Your task to perform on an android device: turn off data saver in the chrome app Image 0: 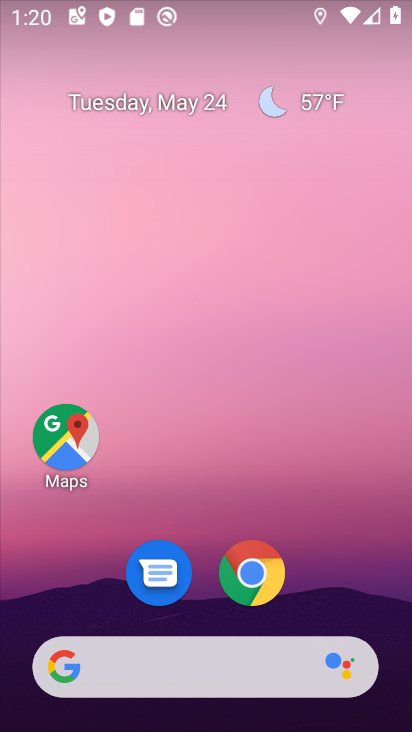
Step 0: drag from (288, 566) to (273, 196)
Your task to perform on an android device: turn off data saver in the chrome app Image 1: 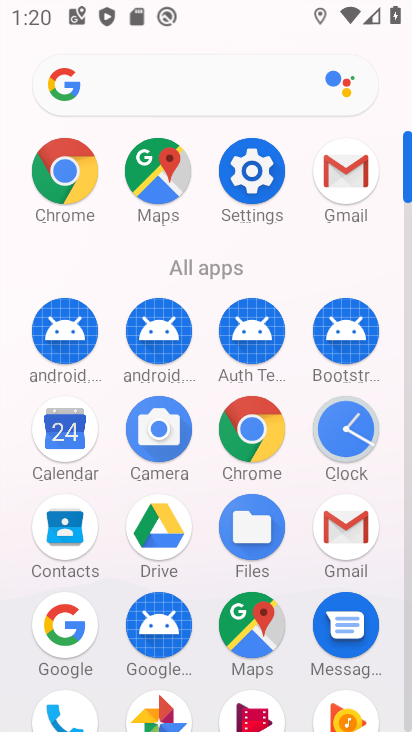
Step 1: click (274, 434)
Your task to perform on an android device: turn off data saver in the chrome app Image 2: 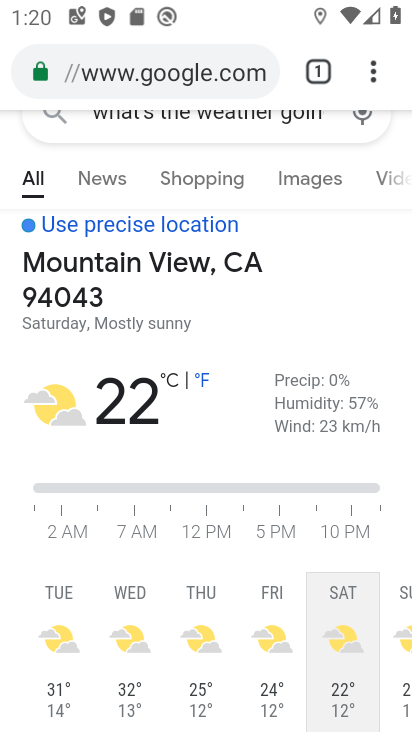
Step 2: drag from (384, 77) to (145, 562)
Your task to perform on an android device: turn off data saver in the chrome app Image 3: 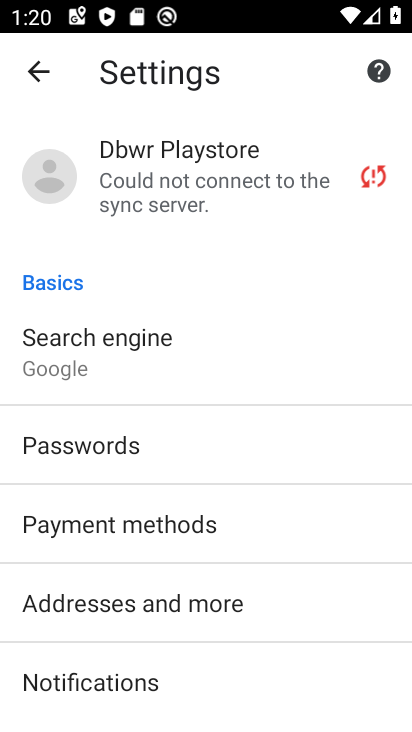
Step 3: drag from (236, 651) to (258, 305)
Your task to perform on an android device: turn off data saver in the chrome app Image 4: 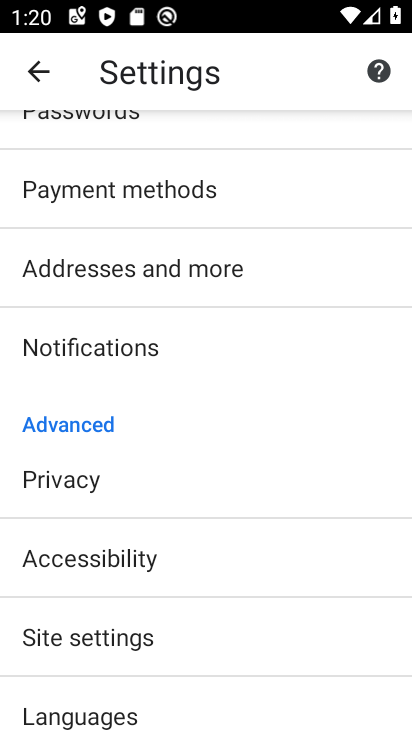
Step 4: drag from (261, 621) to (272, 205)
Your task to perform on an android device: turn off data saver in the chrome app Image 5: 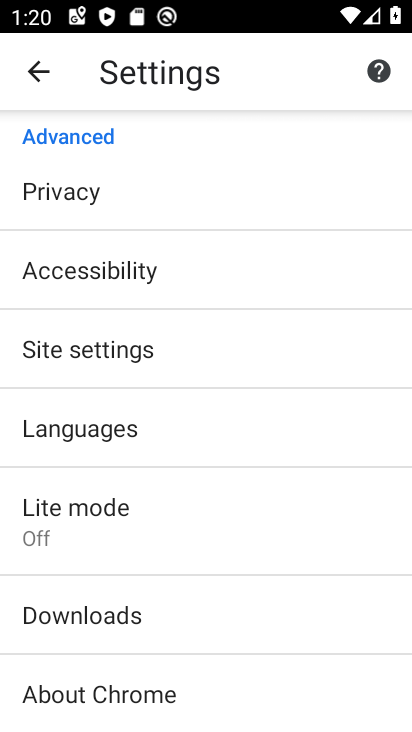
Step 5: drag from (203, 632) to (201, 243)
Your task to perform on an android device: turn off data saver in the chrome app Image 6: 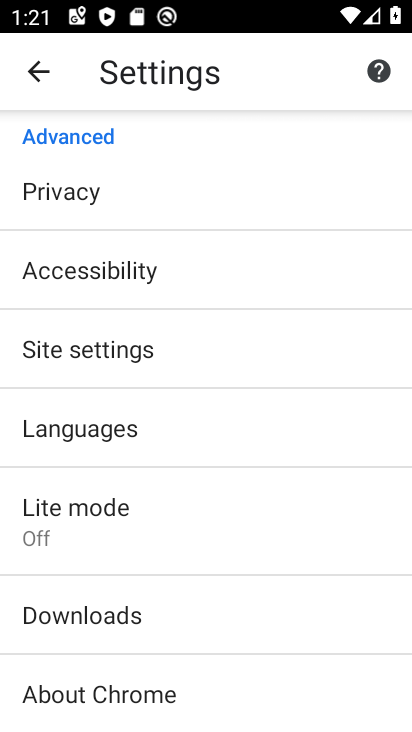
Step 6: click (154, 424)
Your task to perform on an android device: turn off data saver in the chrome app Image 7: 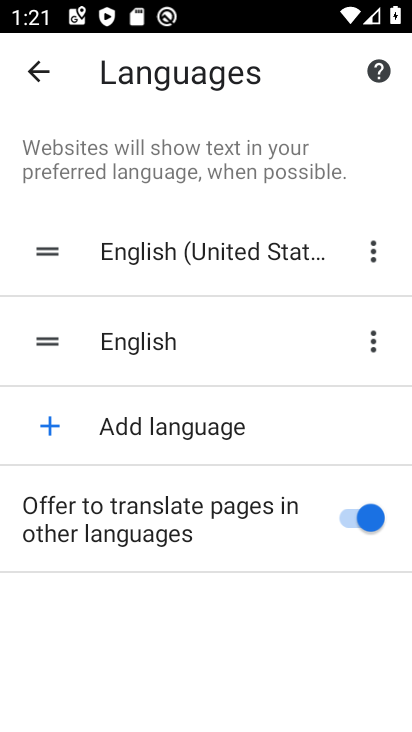
Step 7: click (42, 78)
Your task to perform on an android device: turn off data saver in the chrome app Image 8: 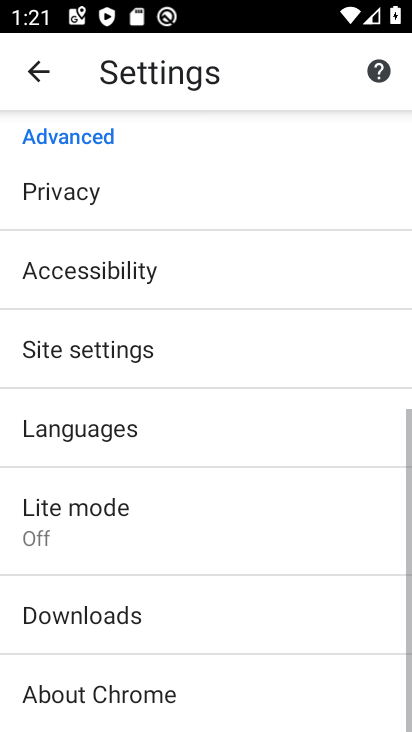
Step 8: click (102, 512)
Your task to perform on an android device: turn off data saver in the chrome app Image 9: 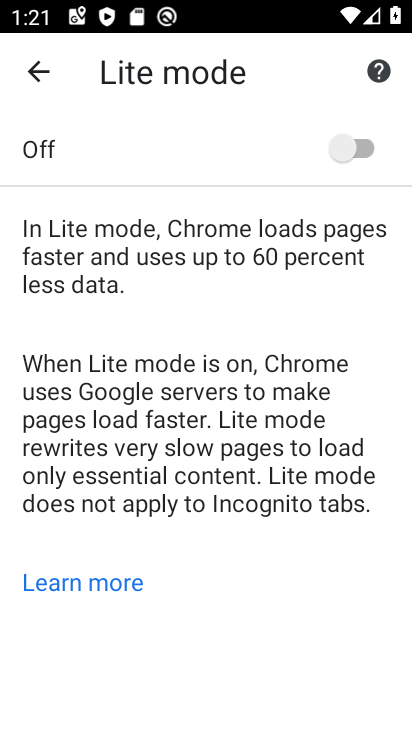
Step 9: task complete